Your task to perform on an android device: check out phone information Image 0: 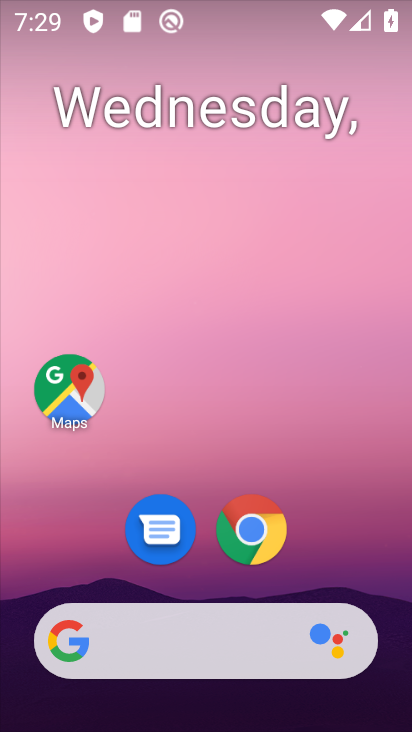
Step 0: drag from (322, 538) to (318, 15)
Your task to perform on an android device: check out phone information Image 1: 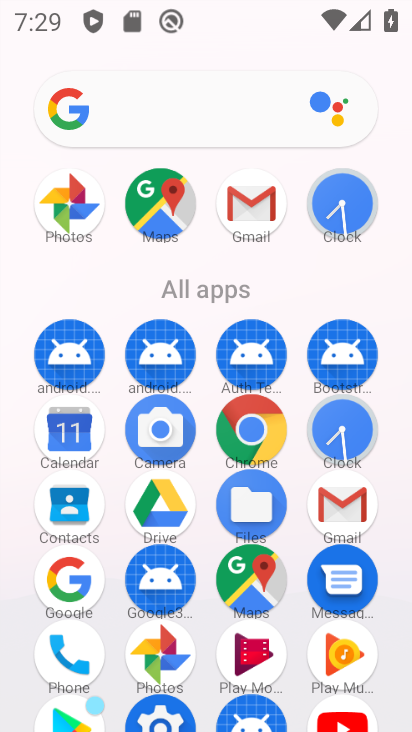
Step 1: click (87, 645)
Your task to perform on an android device: check out phone information Image 2: 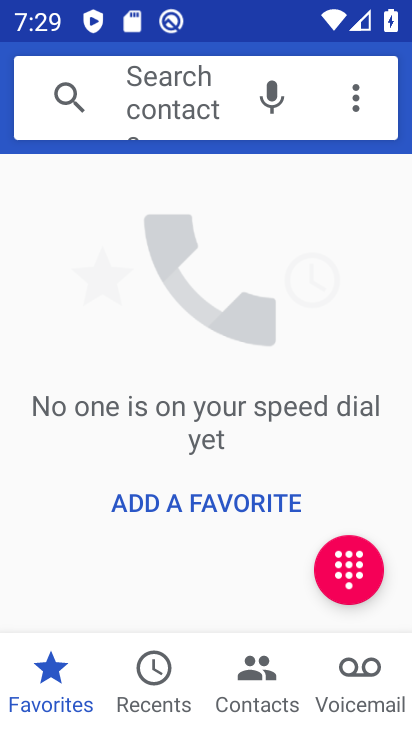
Step 2: click (357, 101)
Your task to perform on an android device: check out phone information Image 3: 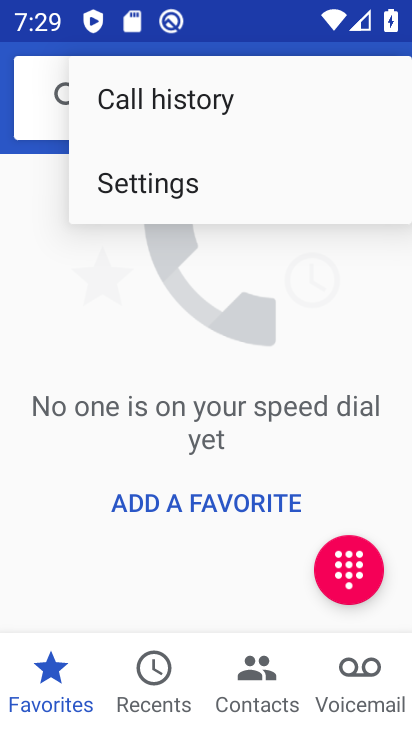
Step 3: click (258, 186)
Your task to perform on an android device: check out phone information Image 4: 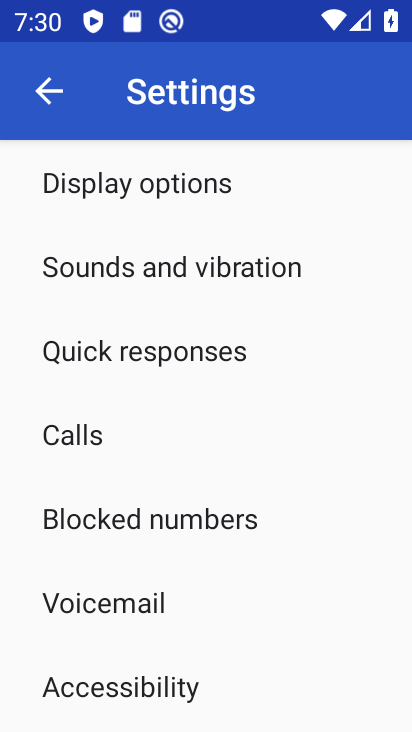
Step 4: drag from (221, 575) to (235, 244)
Your task to perform on an android device: check out phone information Image 5: 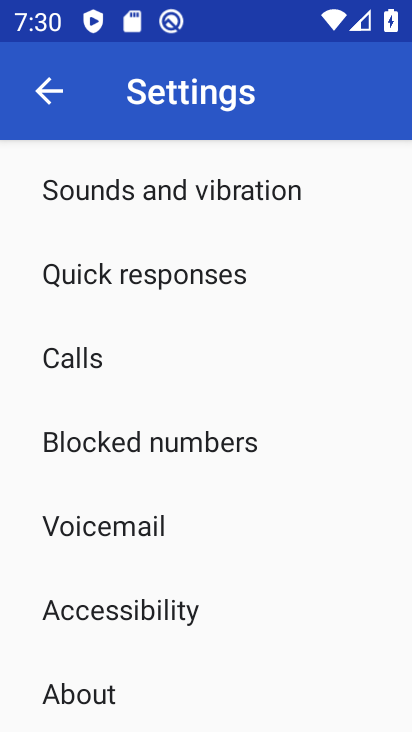
Step 5: click (153, 689)
Your task to perform on an android device: check out phone information Image 6: 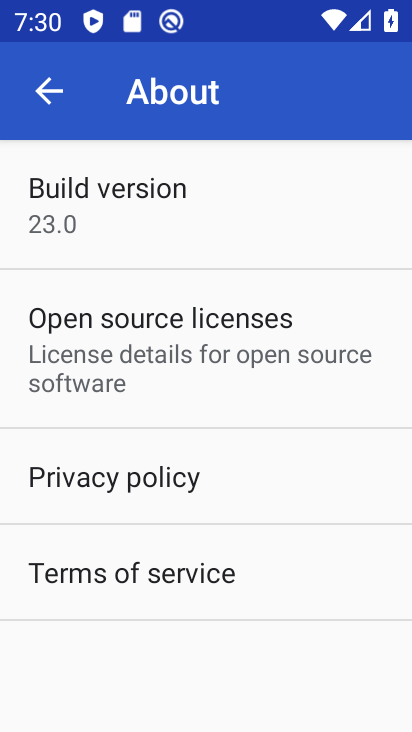
Step 6: task complete